Your task to perform on an android device: Go to battery settings Image 0: 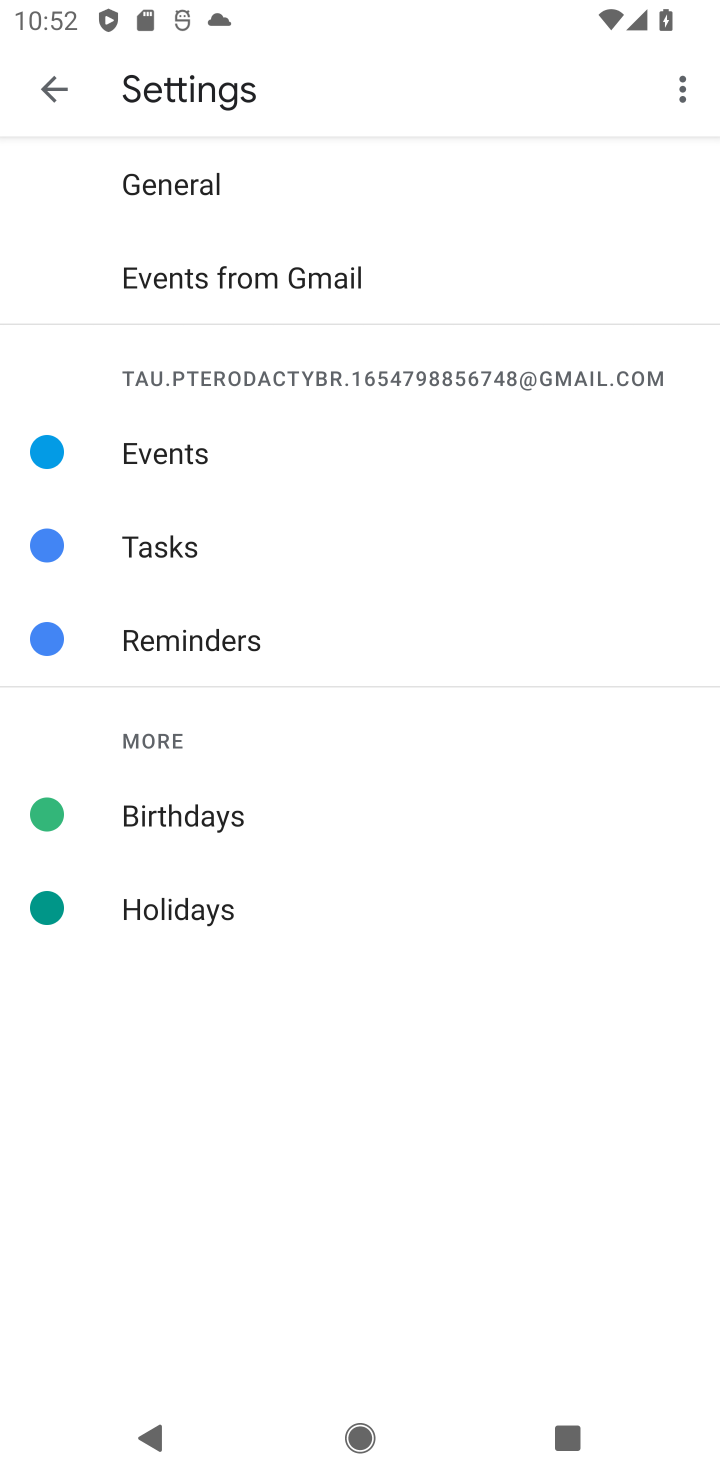
Step 0: press home button
Your task to perform on an android device: Go to battery settings Image 1: 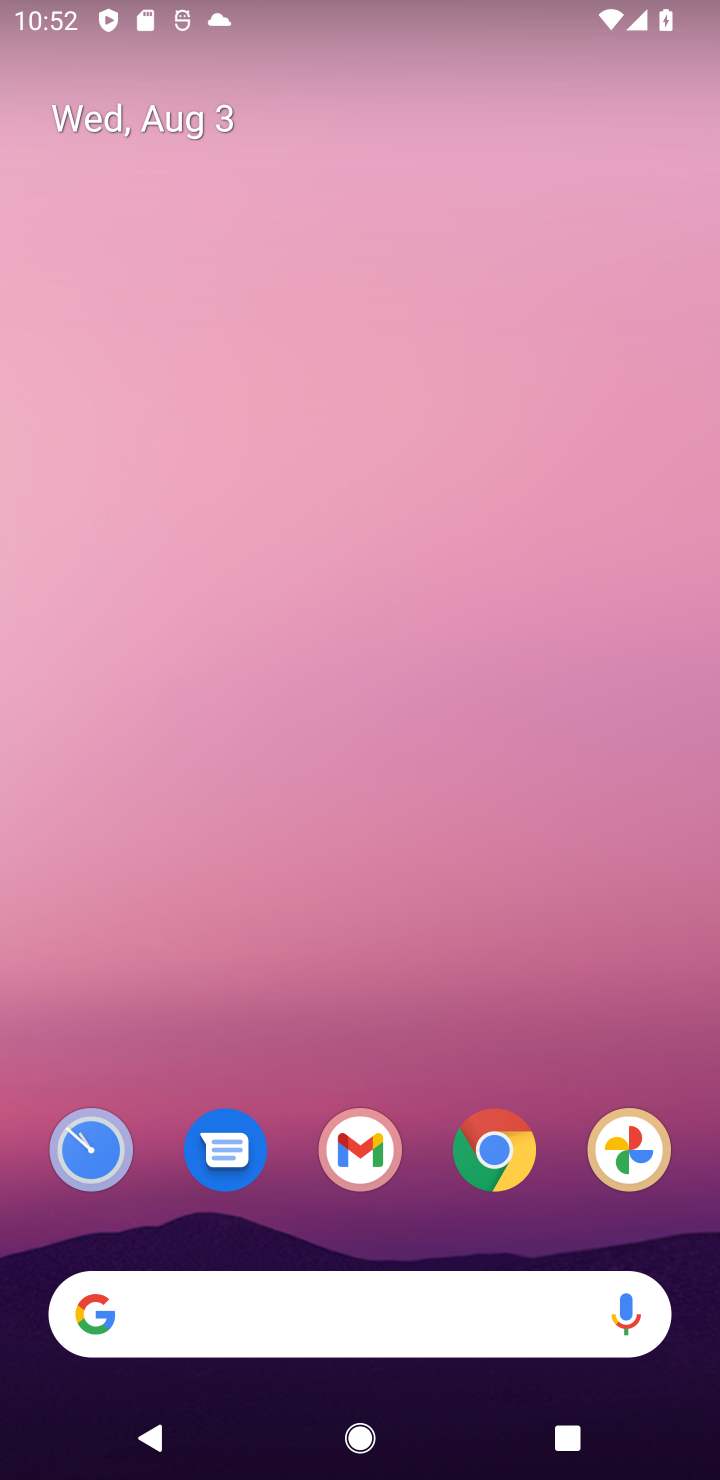
Step 1: drag from (550, 1044) to (578, 370)
Your task to perform on an android device: Go to battery settings Image 2: 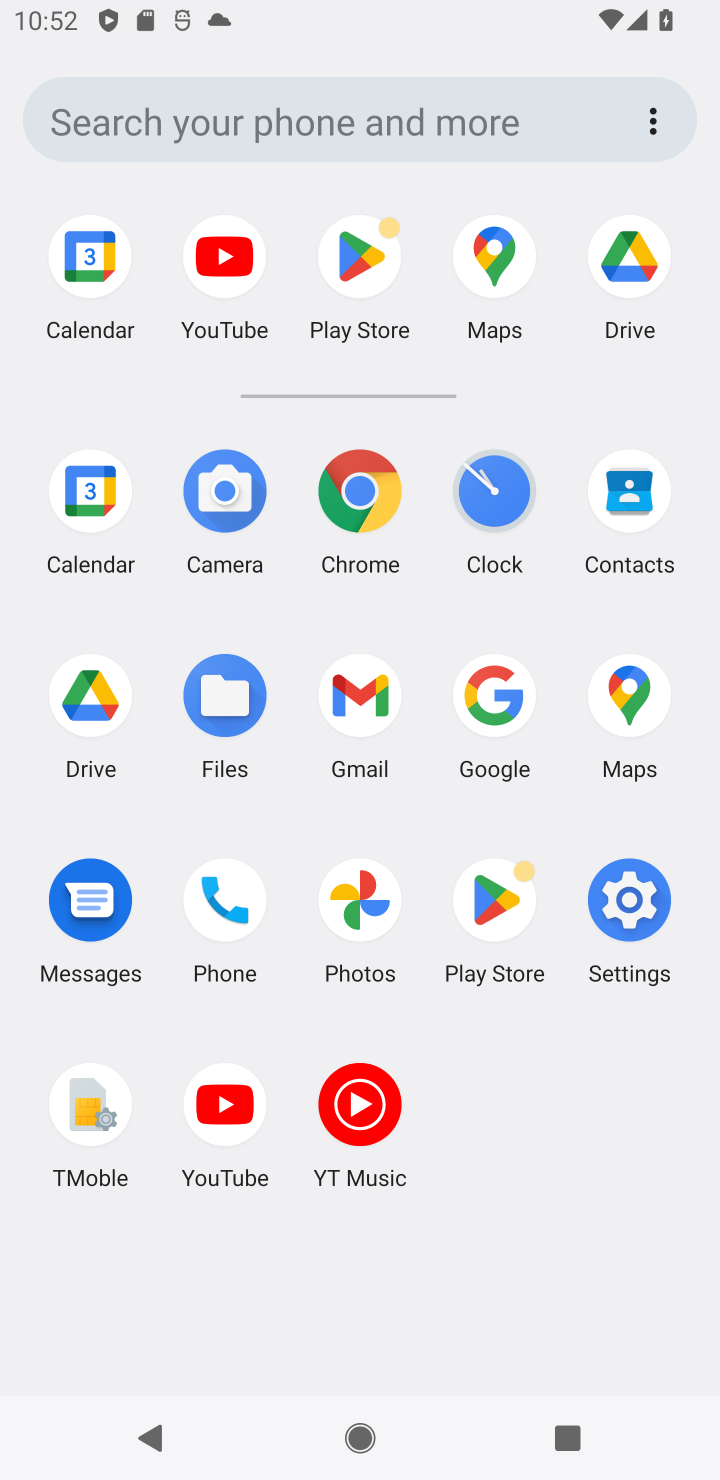
Step 2: click (618, 897)
Your task to perform on an android device: Go to battery settings Image 3: 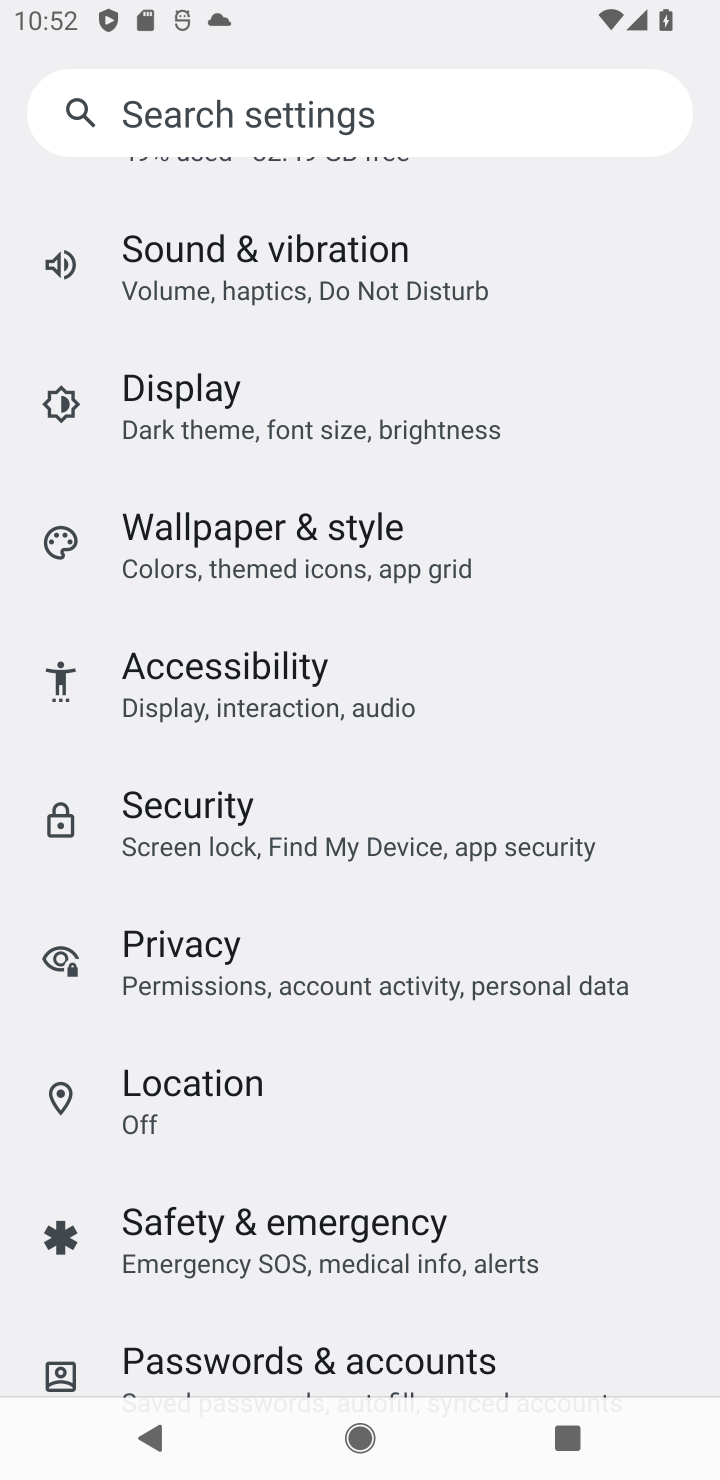
Step 3: drag from (579, 1305) to (632, 888)
Your task to perform on an android device: Go to battery settings Image 4: 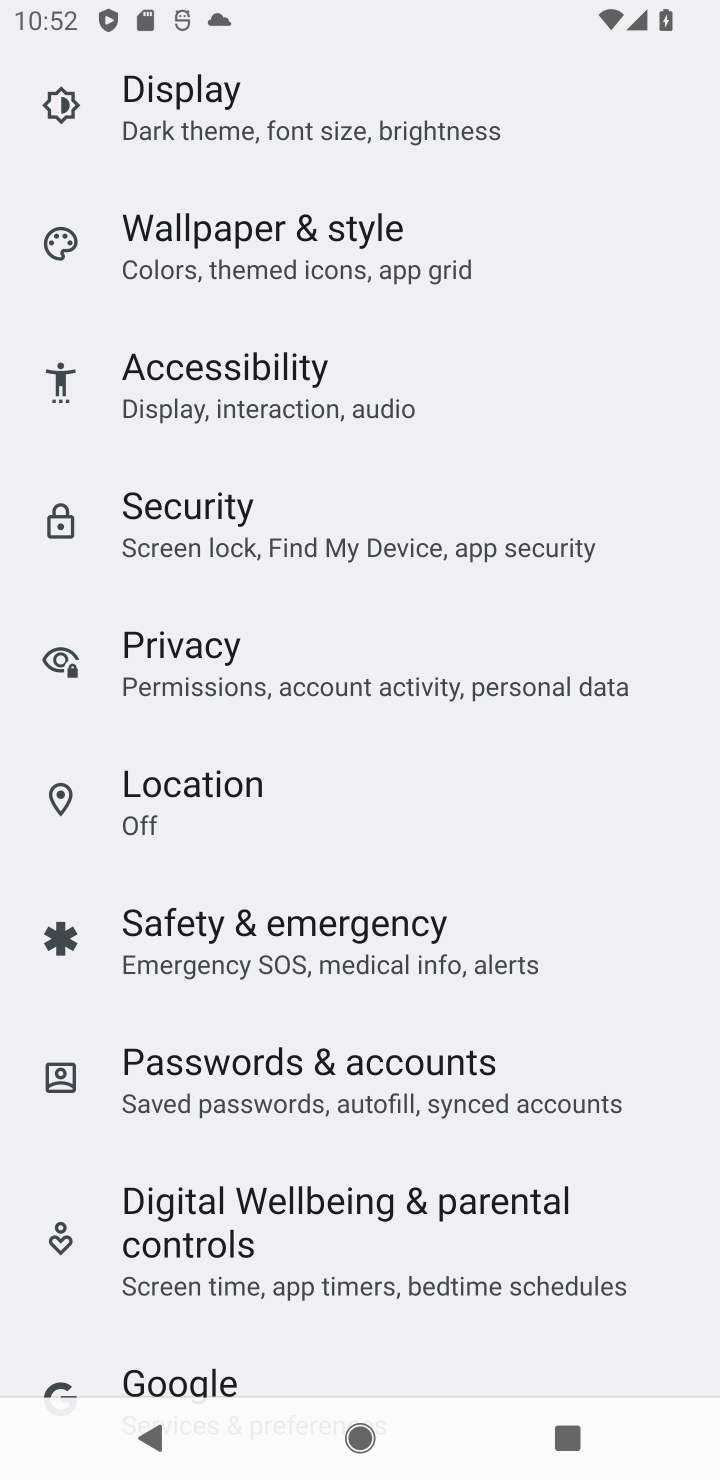
Step 4: drag from (599, 1262) to (603, 844)
Your task to perform on an android device: Go to battery settings Image 5: 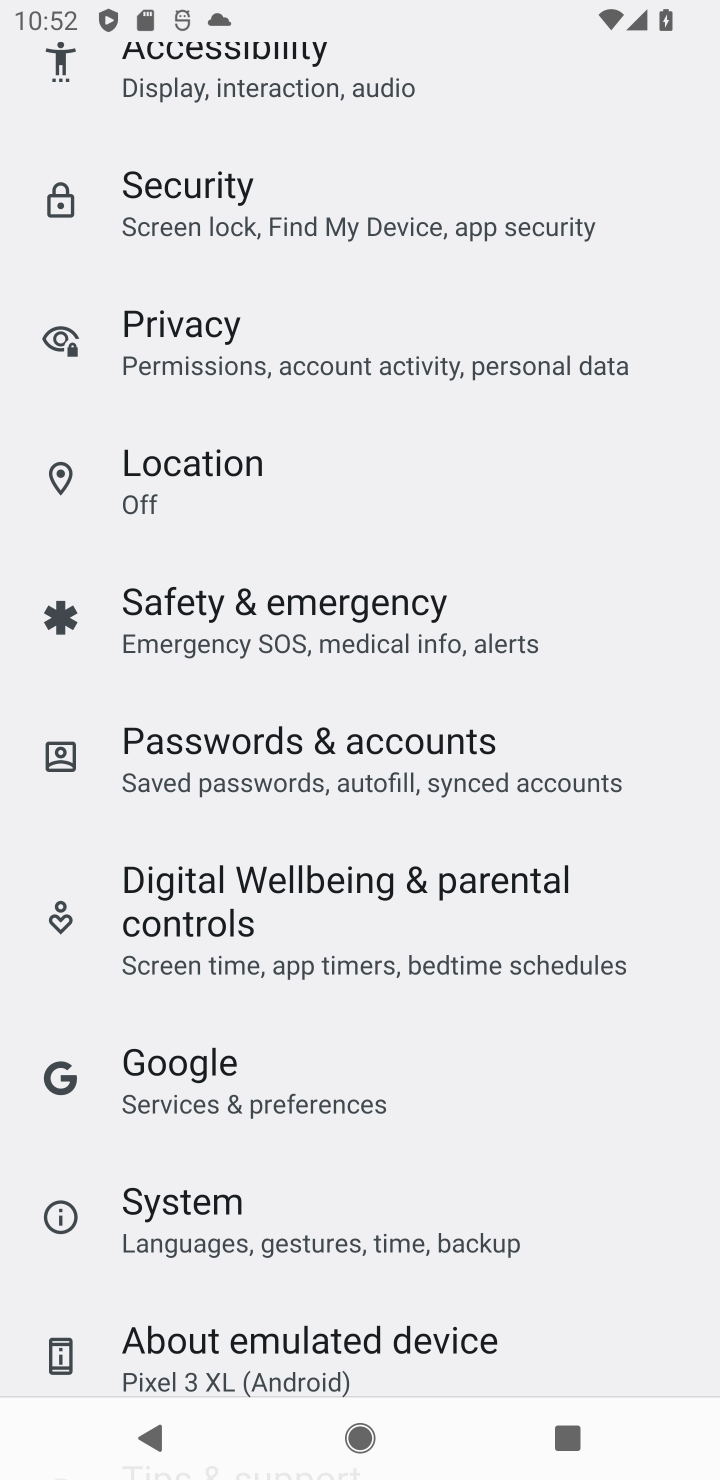
Step 5: drag from (603, 1217) to (614, 885)
Your task to perform on an android device: Go to battery settings Image 6: 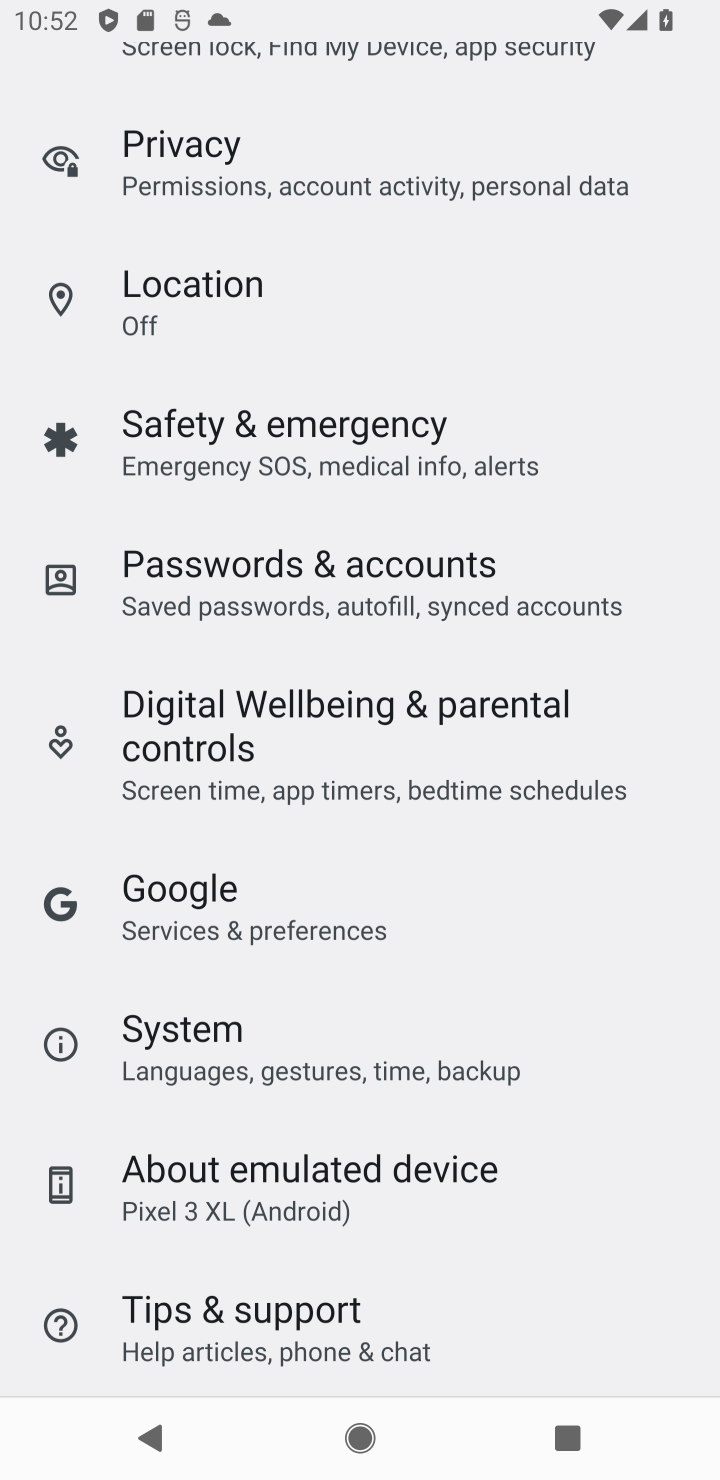
Step 6: drag from (579, 1272) to (580, 904)
Your task to perform on an android device: Go to battery settings Image 7: 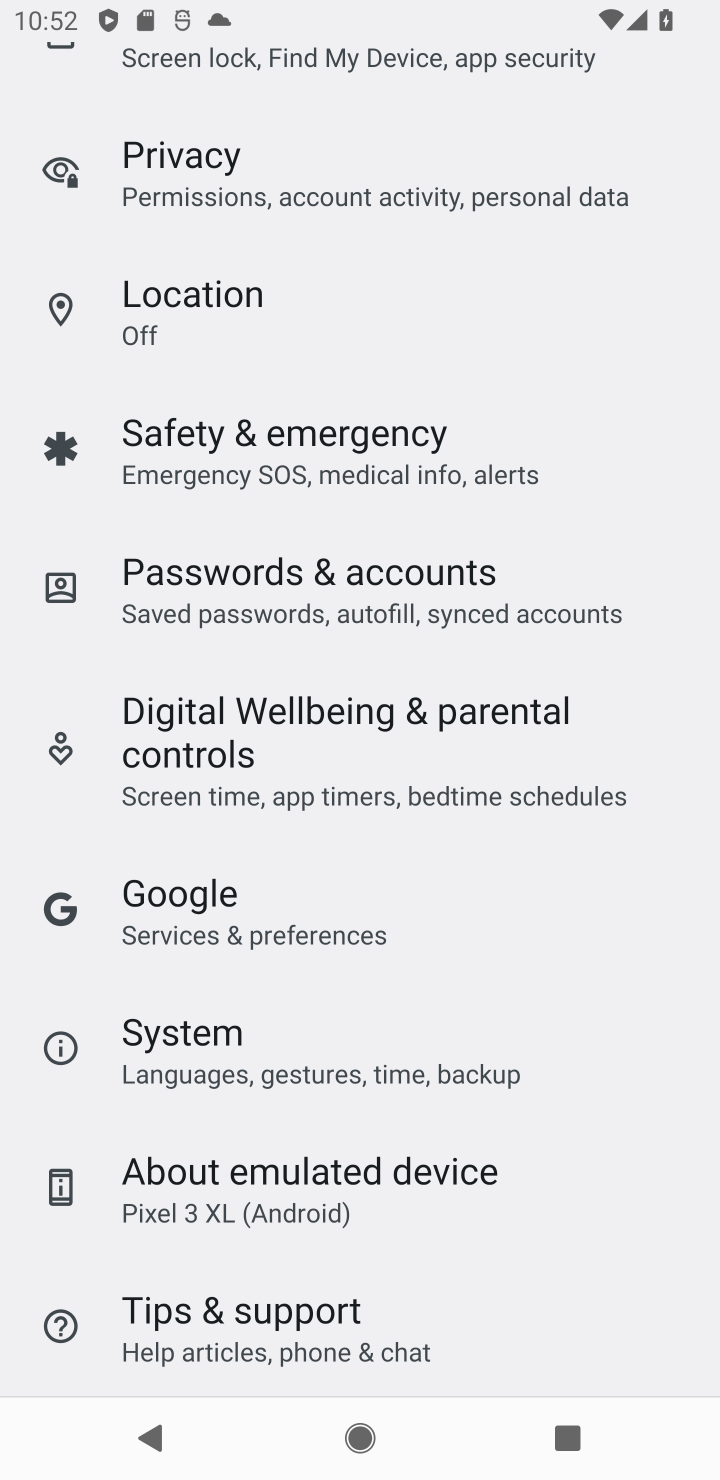
Step 7: drag from (588, 860) to (595, 1142)
Your task to perform on an android device: Go to battery settings Image 8: 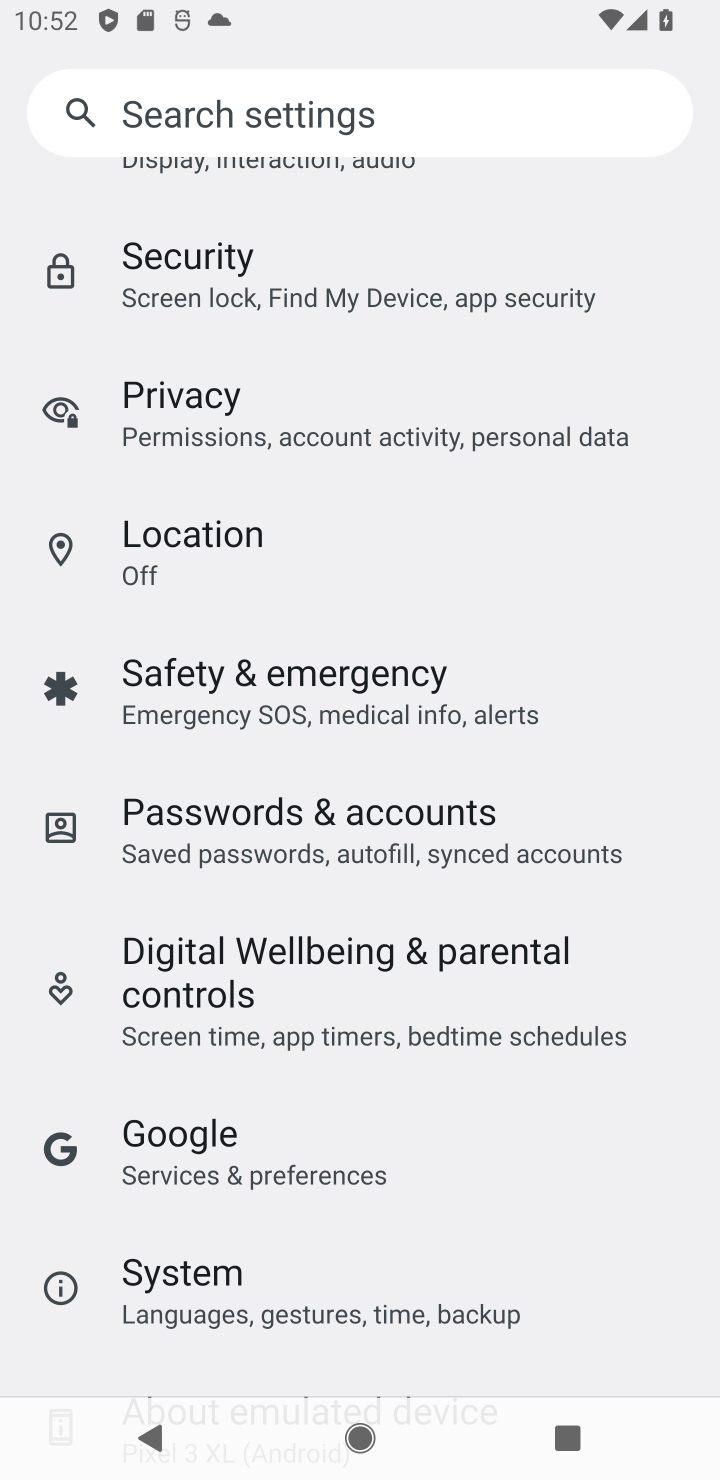
Step 8: drag from (640, 638) to (595, 1065)
Your task to perform on an android device: Go to battery settings Image 9: 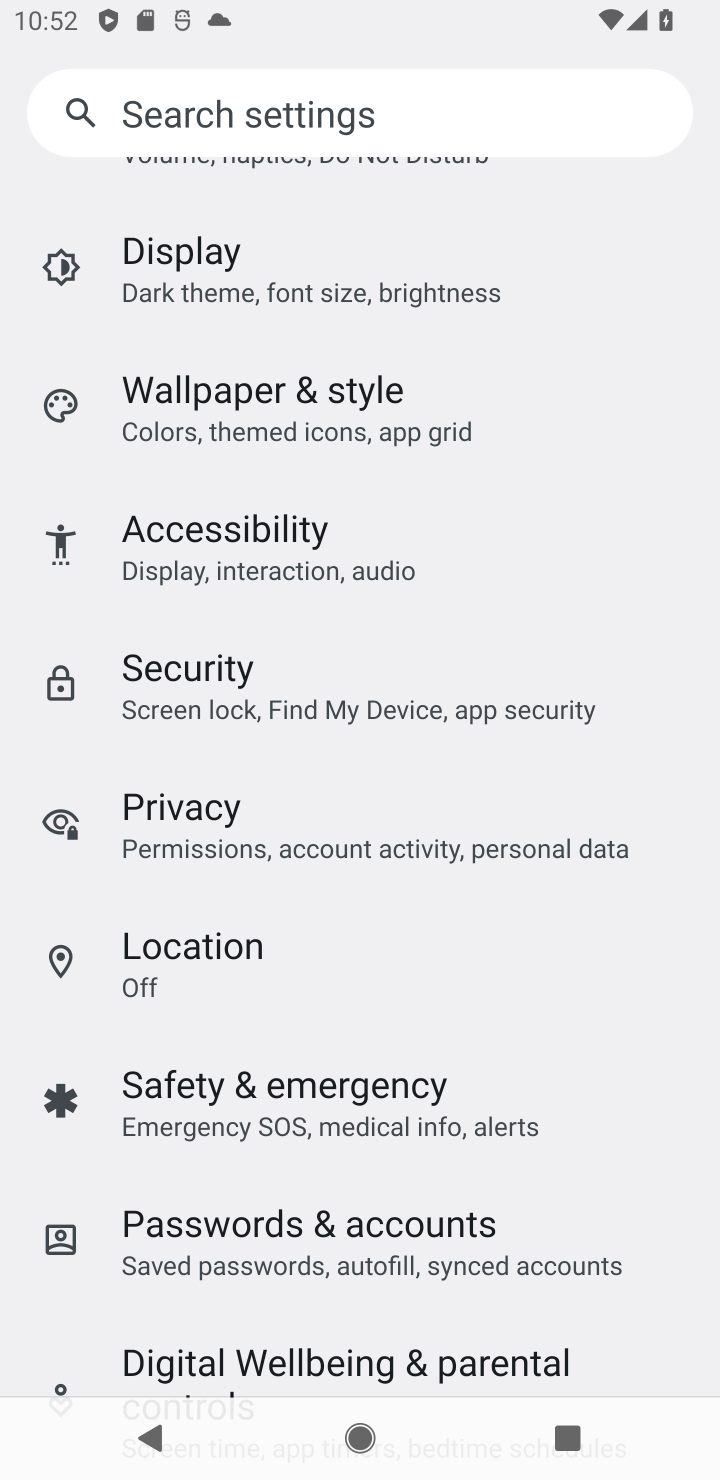
Step 9: drag from (602, 543) to (601, 986)
Your task to perform on an android device: Go to battery settings Image 10: 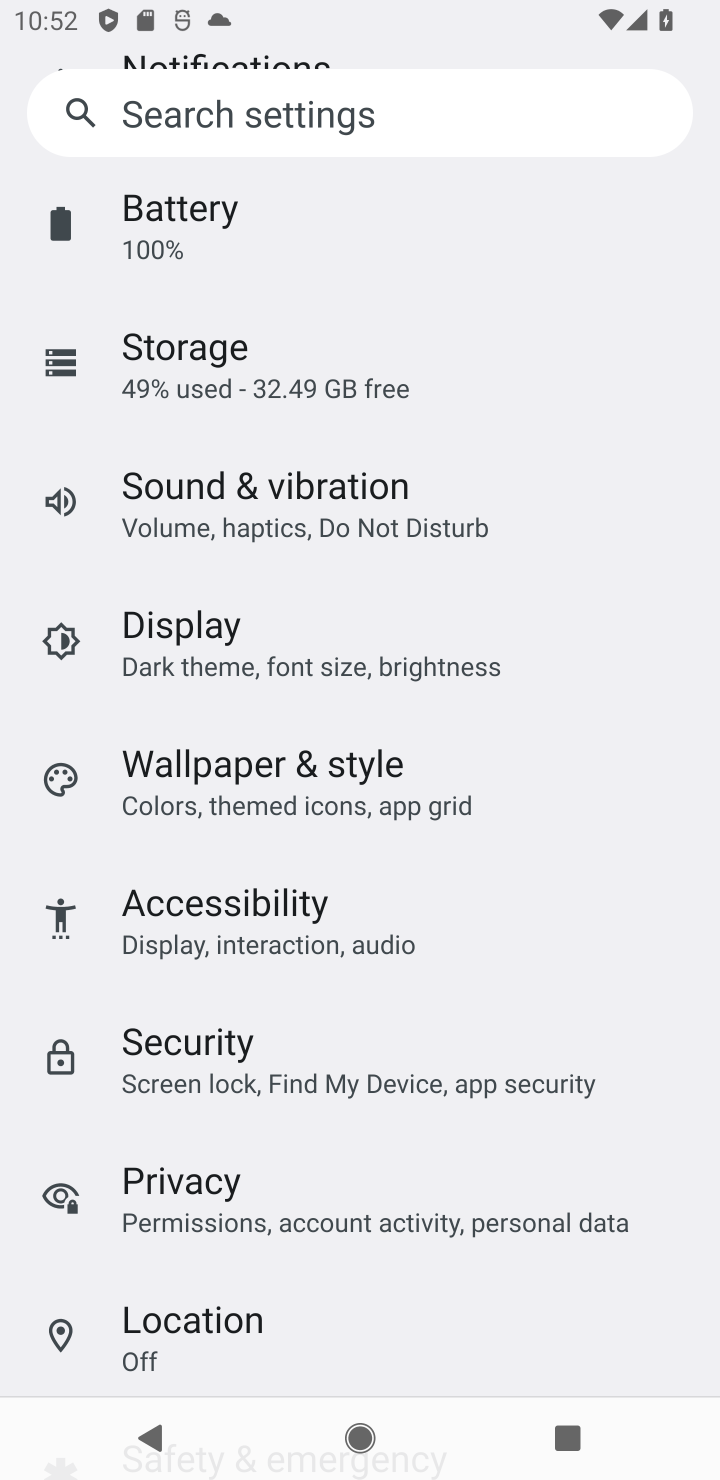
Step 10: drag from (593, 492) to (591, 879)
Your task to perform on an android device: Go to battery settings Image 11: 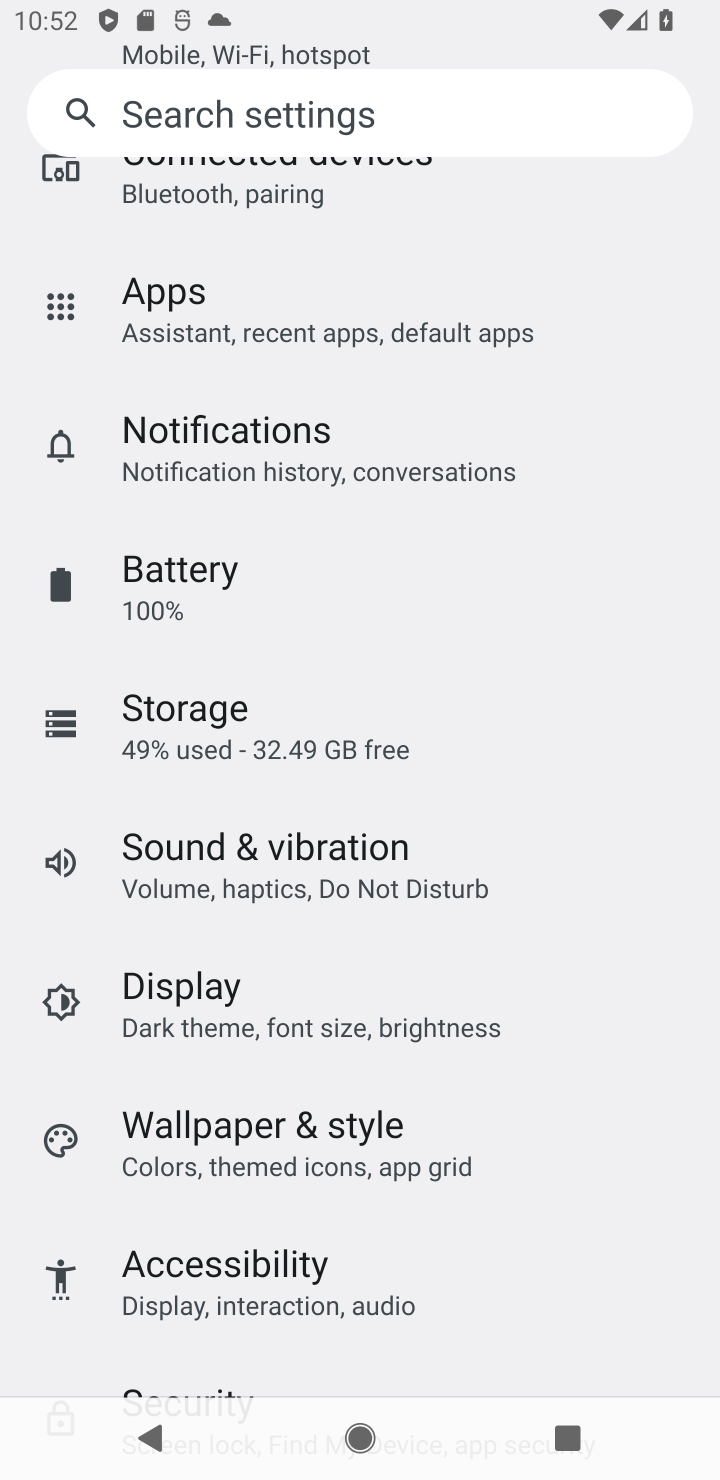
Step 11: drag from (596, 381) to (598, 766)
Your task to perform on an android device: Go to battery settings Image 12: 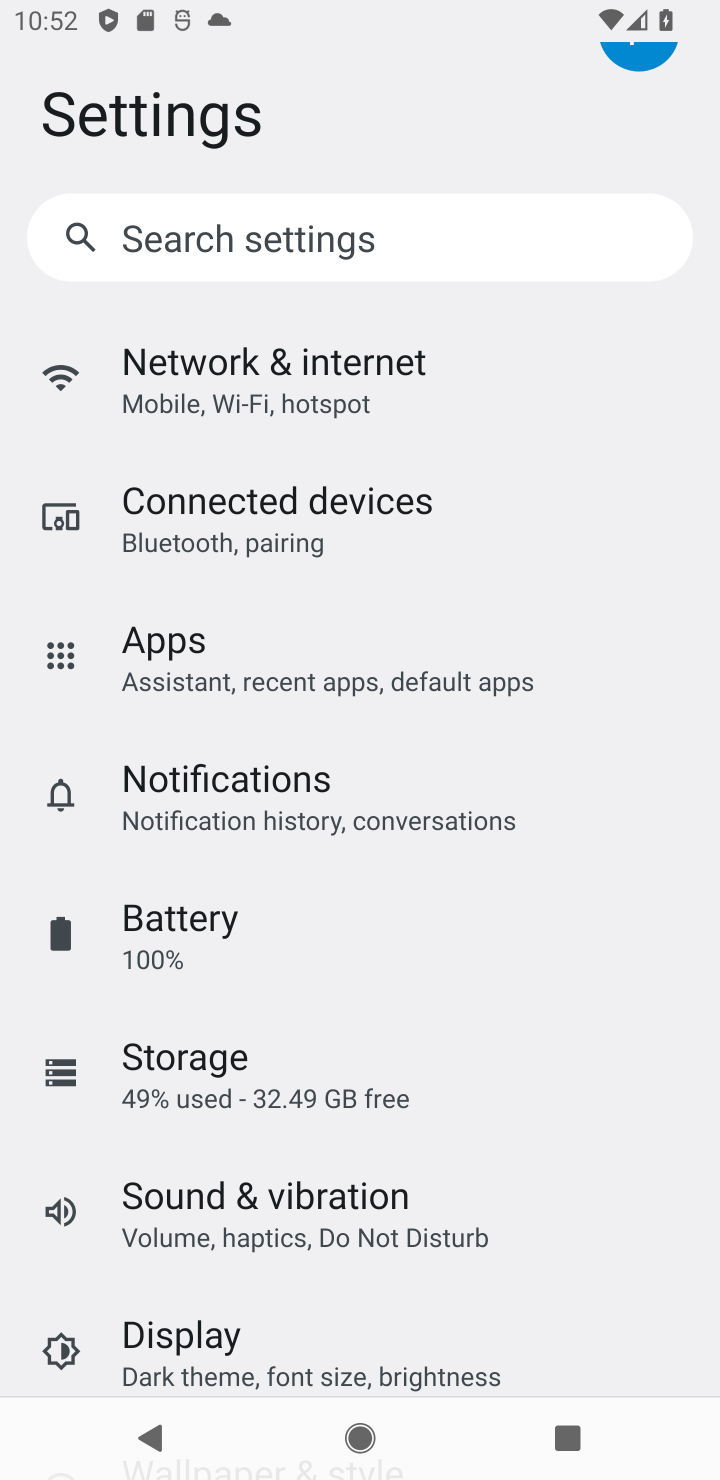
Step 12: click (175, 949)
Your task to perform on an android device: Go to battery settings Image 13: 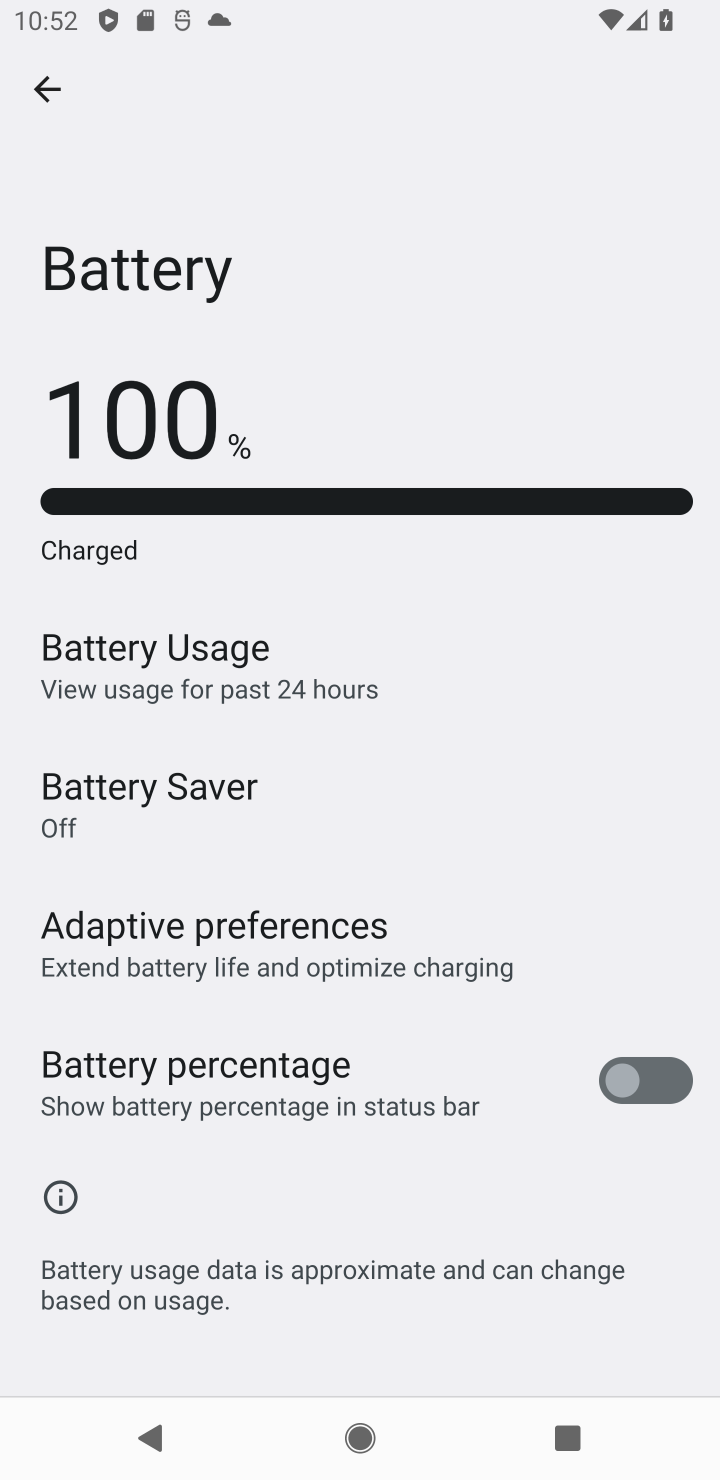
Step 13: task complete